Your task to perform on an android device: open app "Pinterest" (install if not already installed) Image 0: 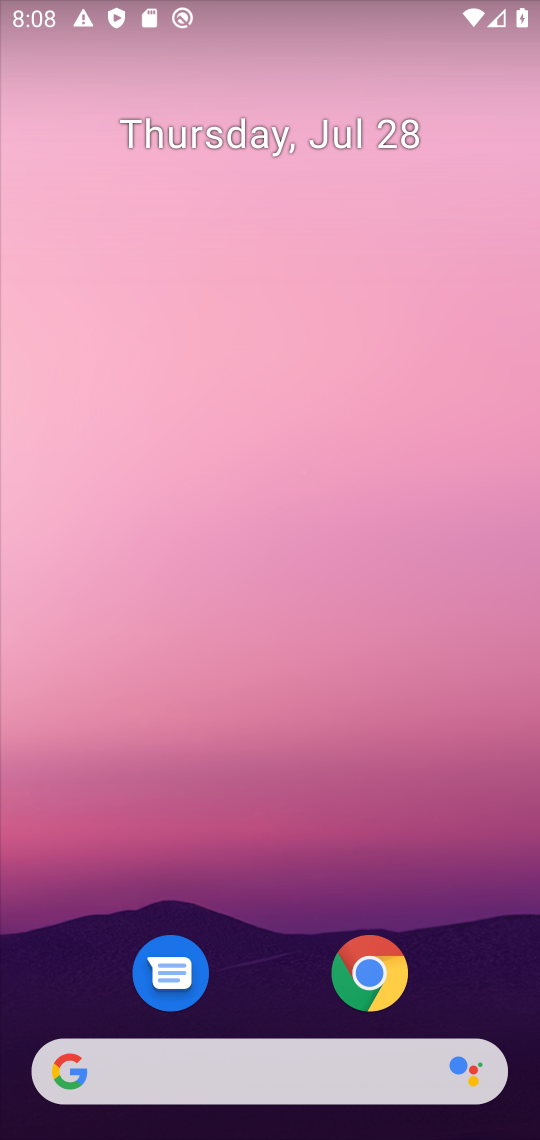
Step 0: drag from (284, 925) to (294, 20)
Your task to perform on an android device: open app "Pinterest" (install if not already installed) Image 1: 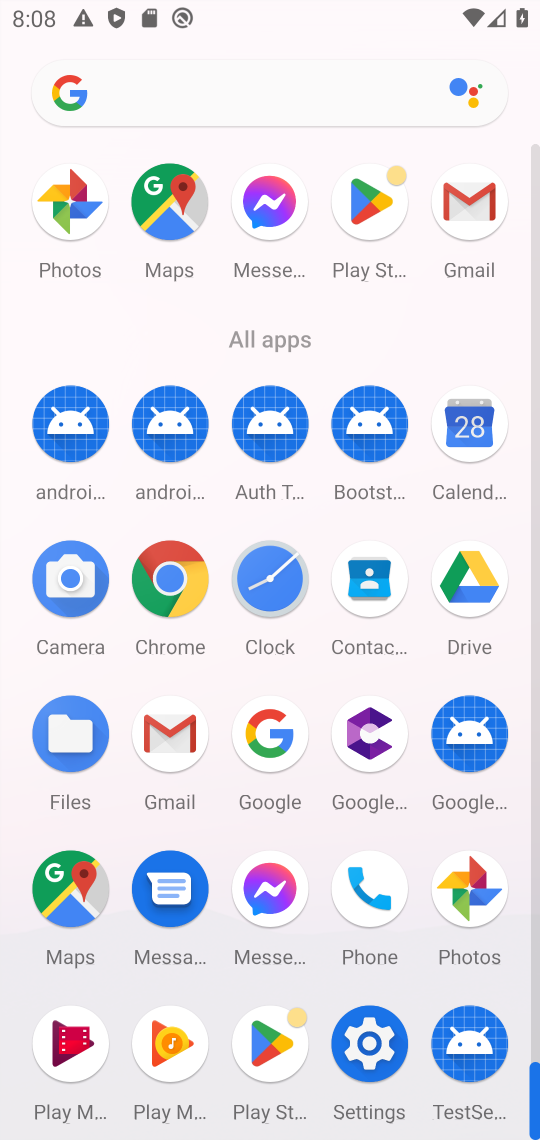
Step 1: click (281, 1068)
Your task to perform on an android device: open app "Pinterest" (install if not already installed) Image 2: 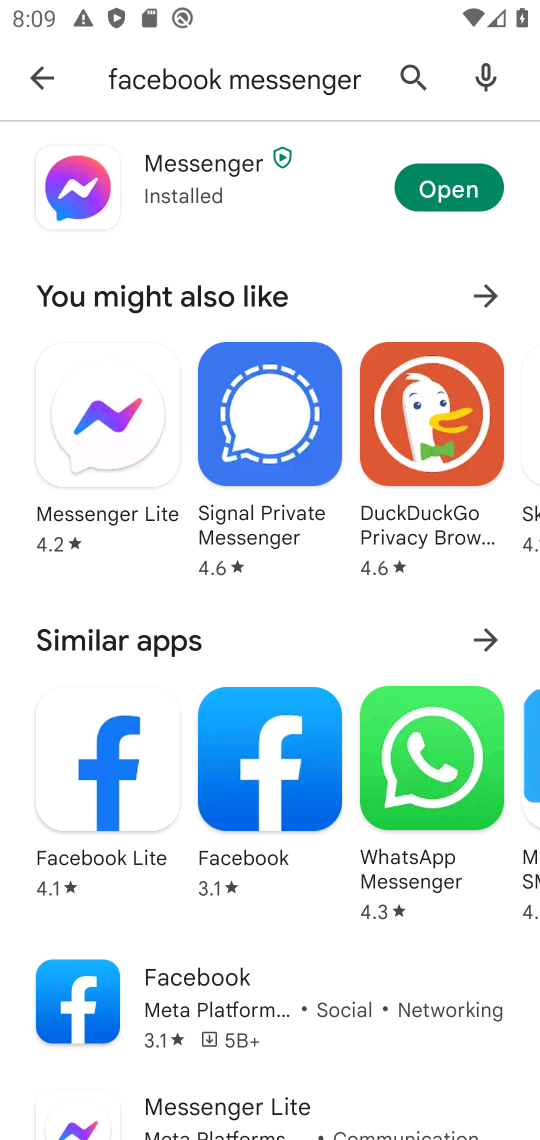
Step 2: click (48, 71)
Your task to perform on an android device: open app "Pinterest" (install if not already installed) Image 3: 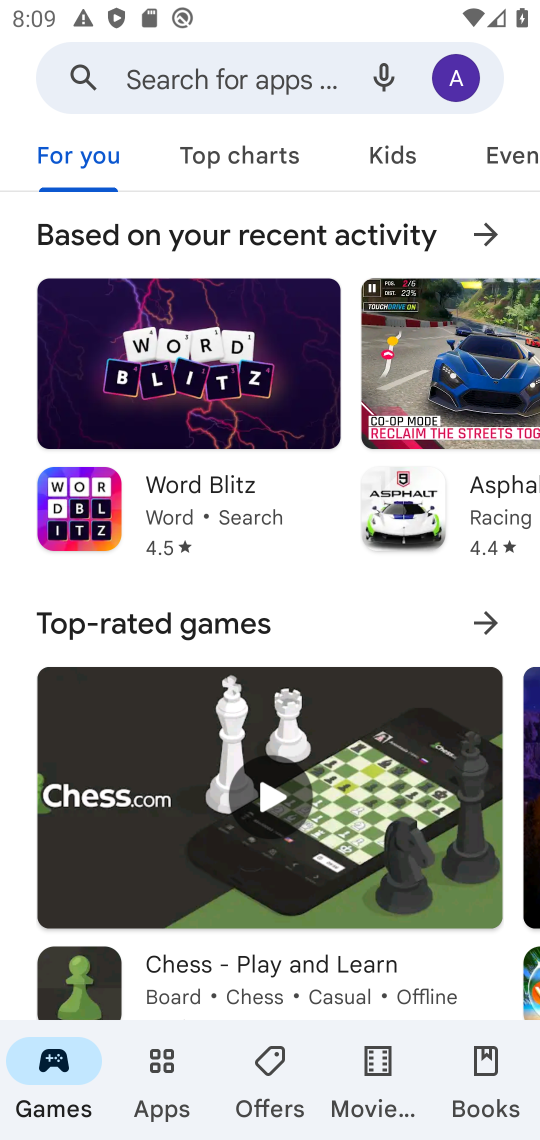
Step 3: click (153, 72)
Your task to perform on an android device: open app "Pinterest" (install if not already installed) Image 4: 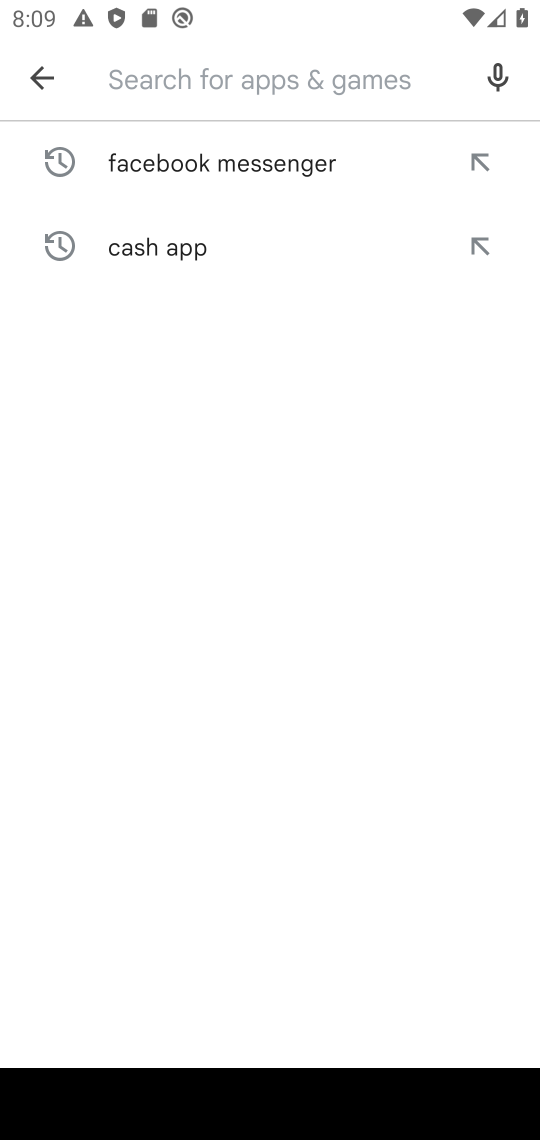
Step 4: type "Pinterest"
Your task to perform on an android device: open app "Pinterest" (install if not already installed) Image 5: 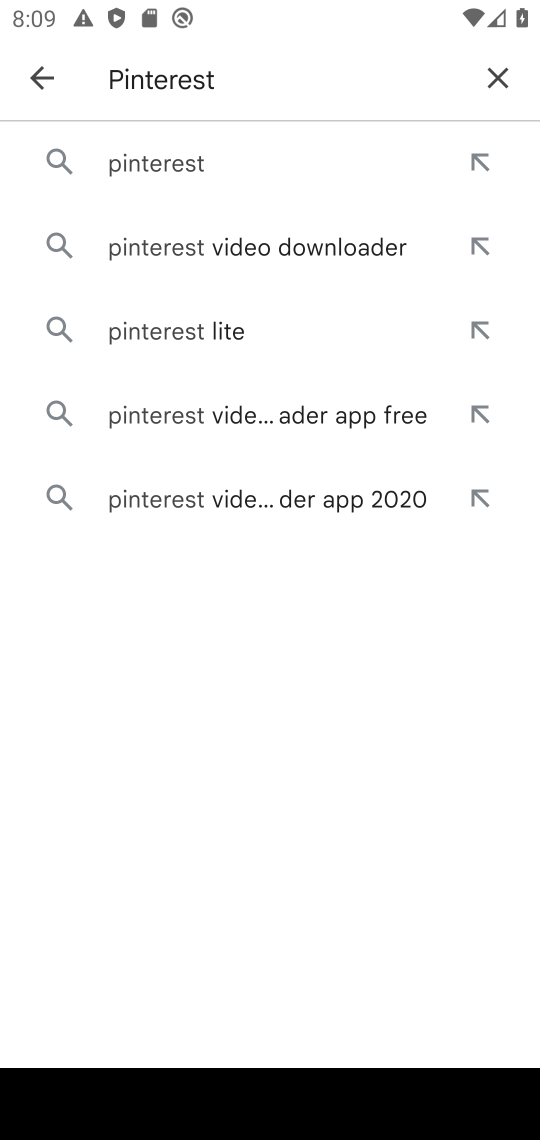
Step 5: click (208, 180)
Your task to perform on an android device: open app "Pinterest" (install if not already installed) Image 6: 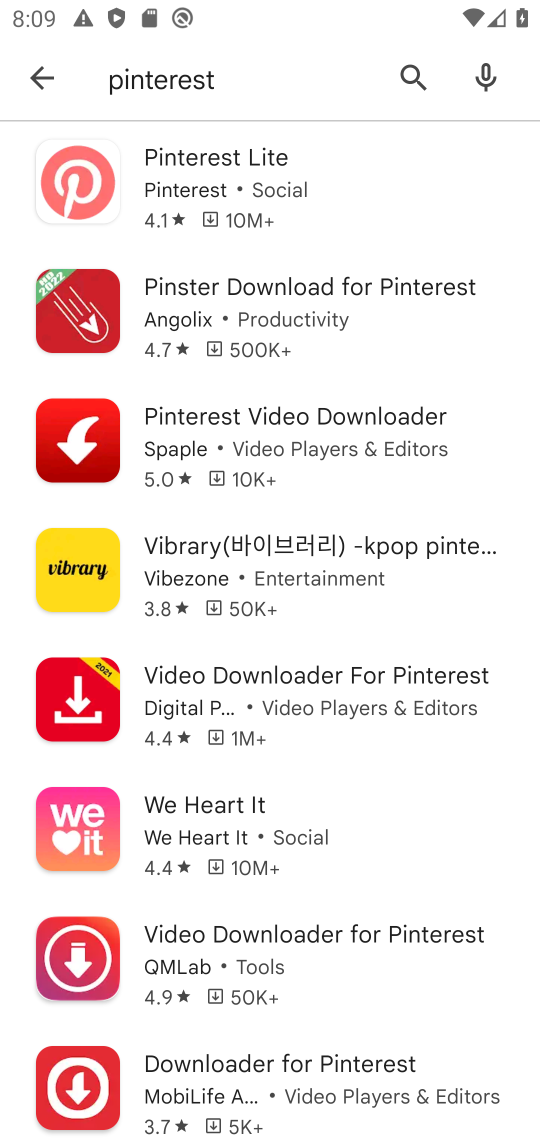
Step 6: click (206, 175)
Your task to perform on an android device: open app "Pinterest" (install if not already installed) Image 7: 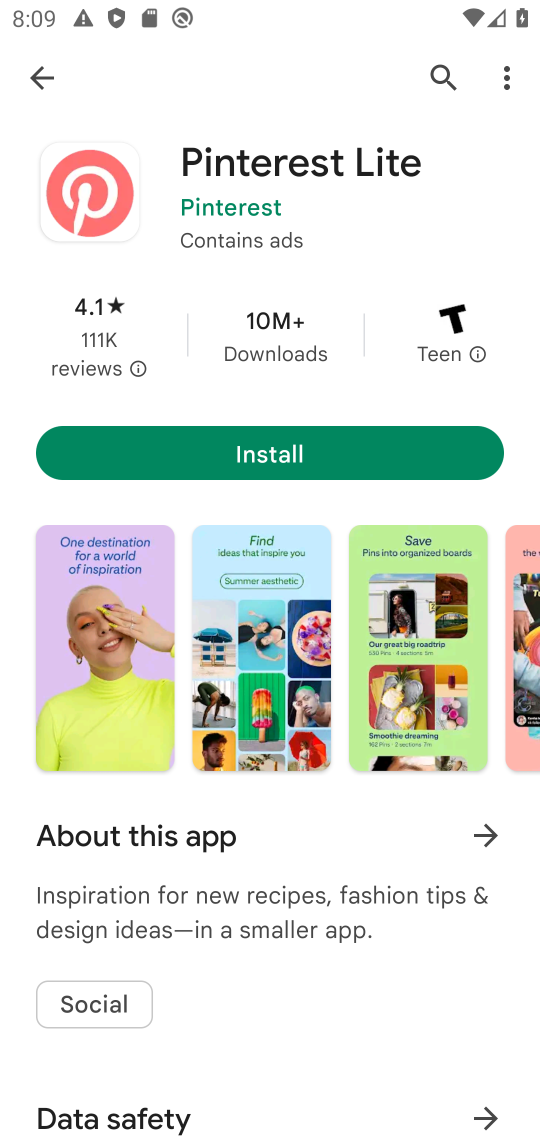
Step 7: click (332, 451)
Your task to perform on an android device: open app "Pinterest" (install if not already installed) Image 8: 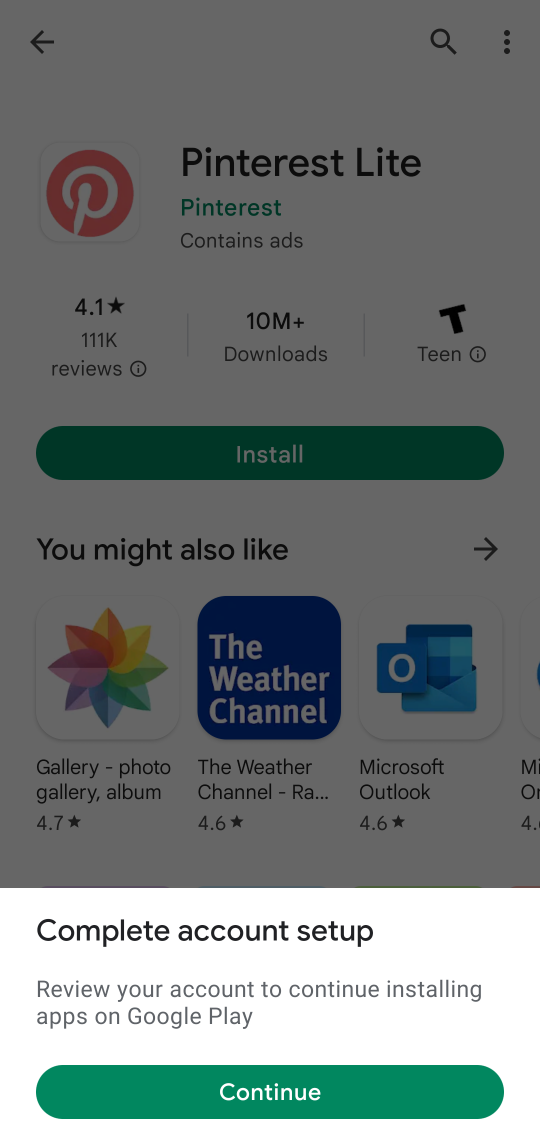
Step 8: click (282, 1100)
Your task to perform on an android device: open app "Pinterest" (install if not already installed) Image 9: 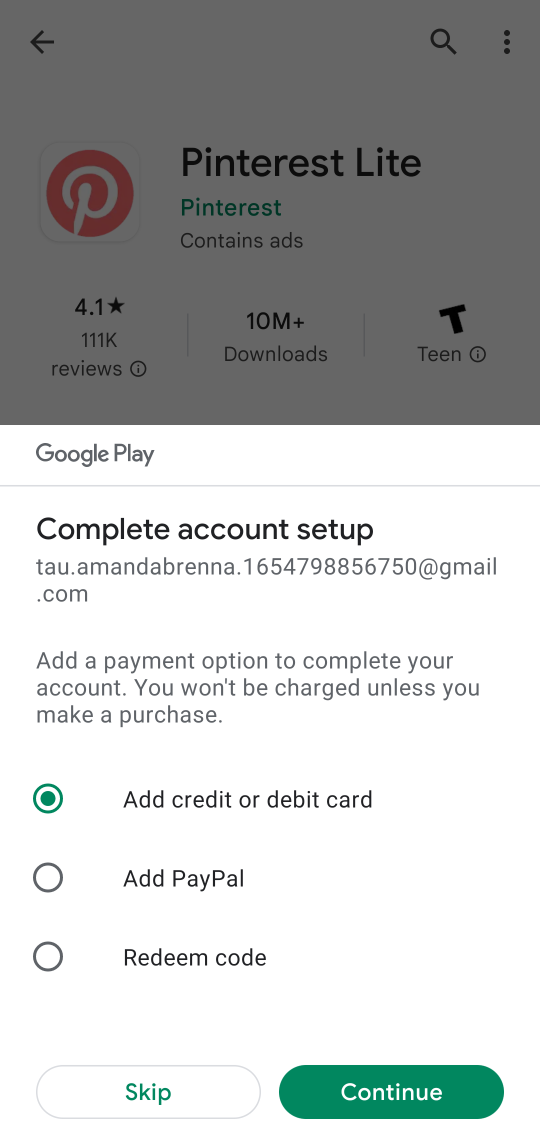
Step 9: click (173, 1082)
Your task to perform on an android device: open app "Pinterest" (install if not already installed) Image 10: 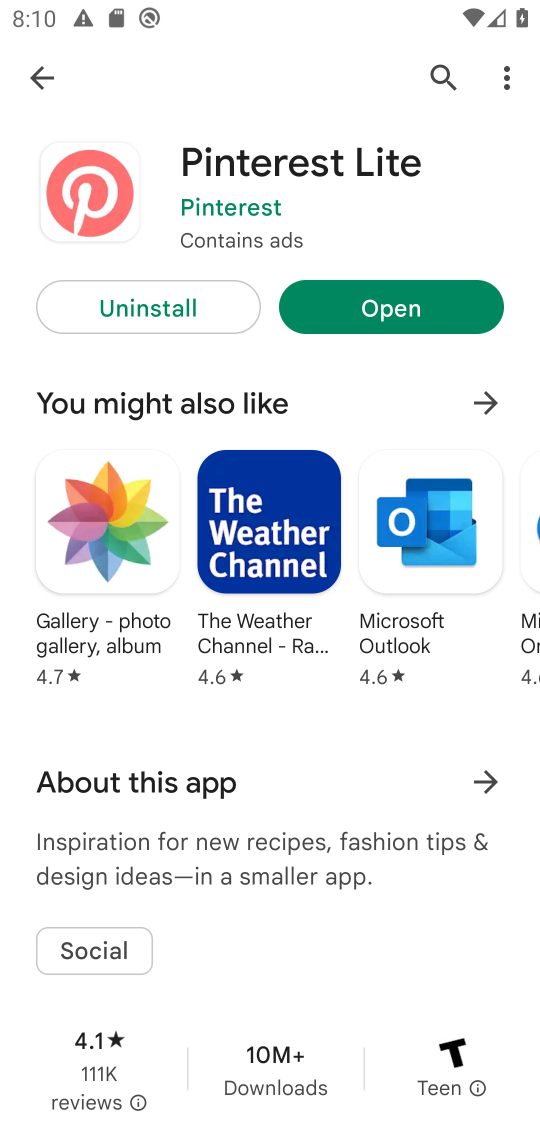
Step 10: click (444, 316)
Your task to perform on an android device: open app "Pinterest" (install if not already installed) Image 11: 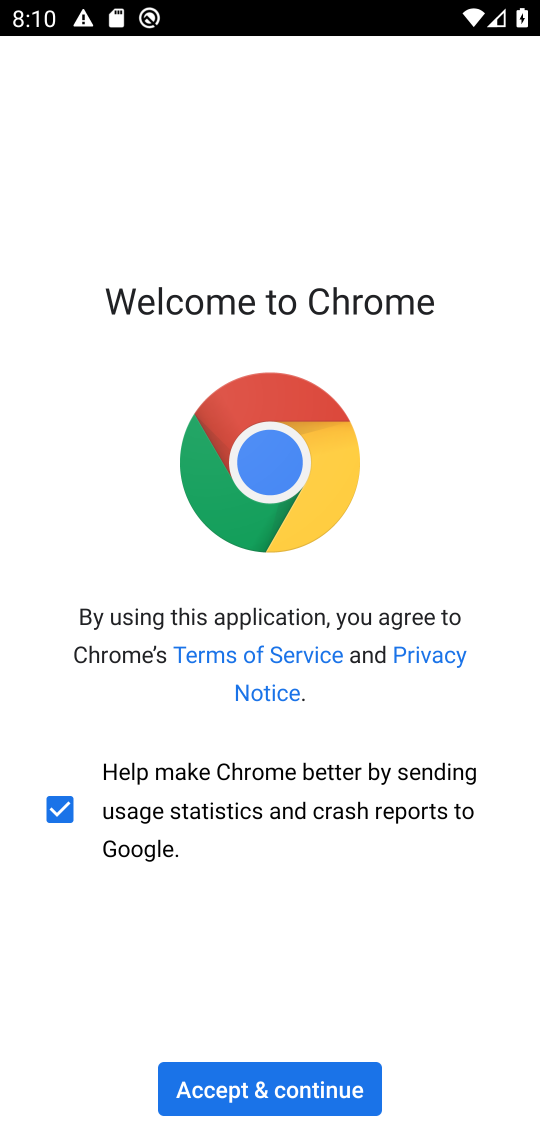
Step 11: task complete